Your task to perform on an android device: Go to Android settings Image 0: 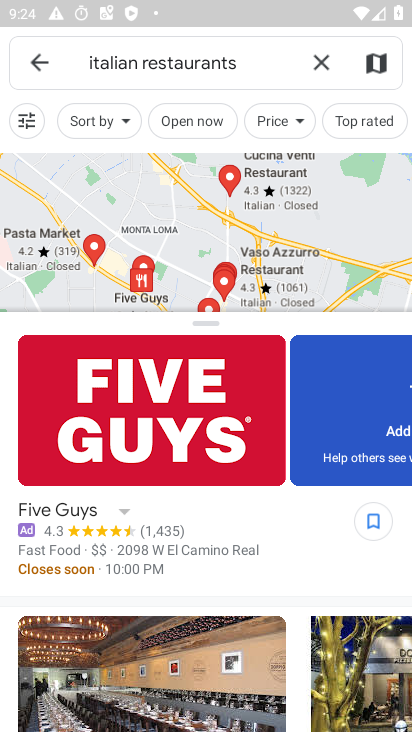
Step 0: press home button
Your task to perform on an android device: Go to Android settings Image 1: 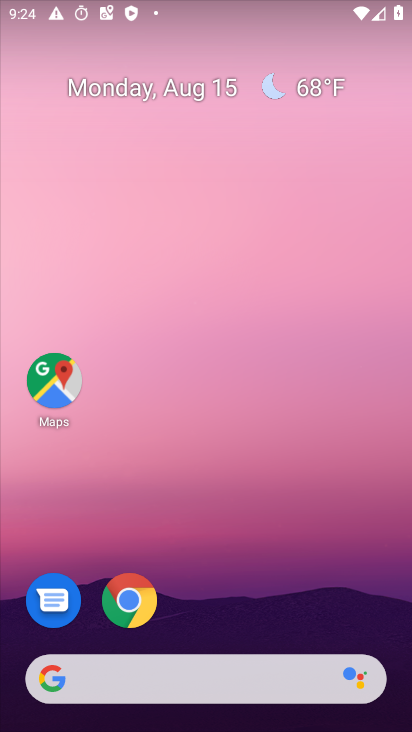
Step 1: drag from (236, 649) to (240, 119)
Your task to perform on an android device: Go to Android settings Image 2: 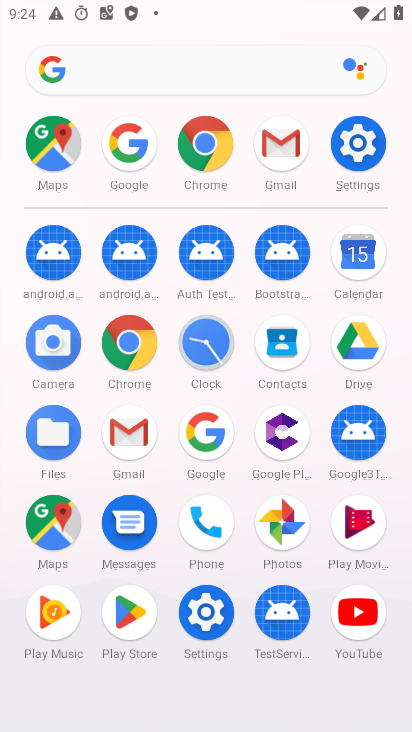
Step 2: click (361, 136)
Your task to perform on an android device: Go to Android settings Image 3: 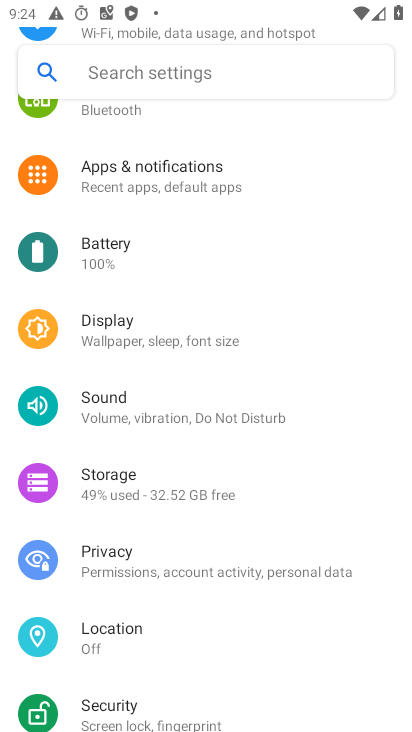
Step 3: task complete